Your task to perform on an android device: change the clock display to analog Image 0: 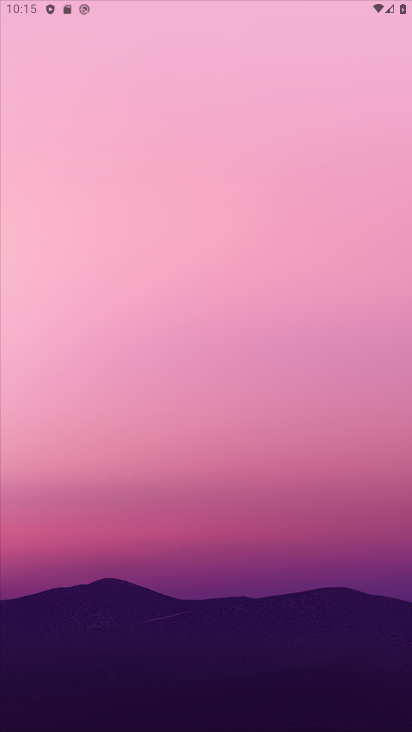
Step 0: press back button
Your task to perform on an android device: change the clock display to analog Image 1: 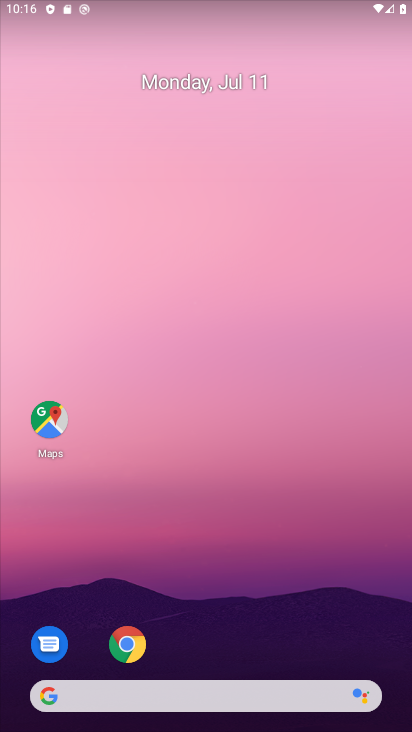
Step 1: drag from (132, 485) to (73, 207)
Your task to perform on an android device: change the clock display to analog Image 2: 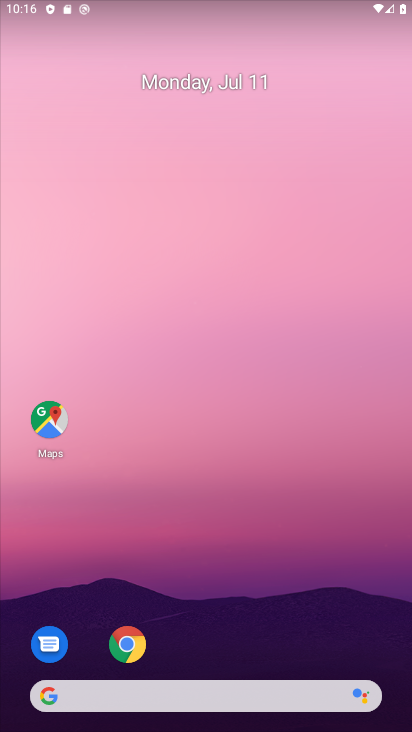
Step 2: drag from (228, 597) to (211, 184)
Your task to perform on an android device: change the clock display to analog Image 3: 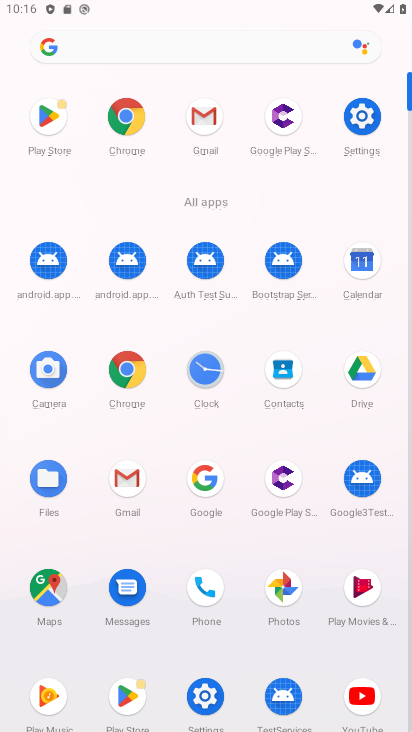
Step 3: click (192, 365)
Your task to perform on an android device: change the clock display to analog Image 4: 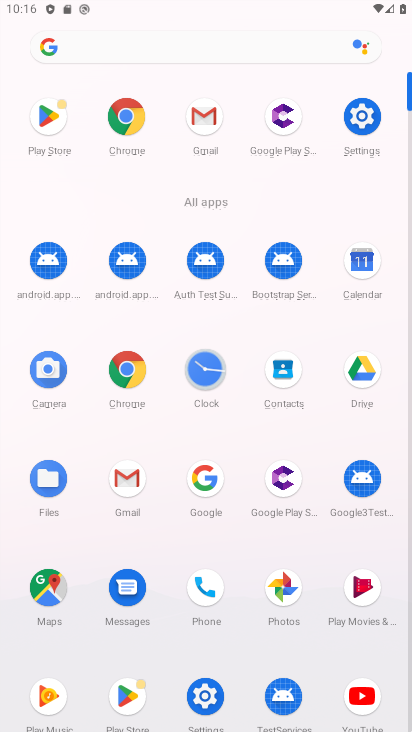
Step 4: click (198, 369)
Your task to perform on an android device: change the clock display to analog Image 5: 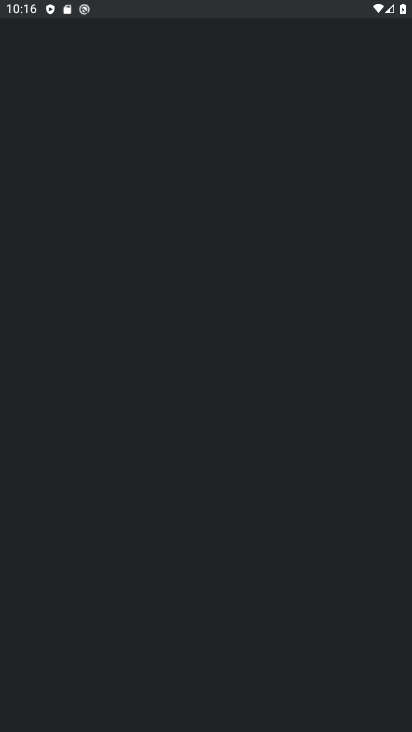
Step 5: click (198, 369)
Your task to perform on an android device: change the clock display to analog Image 6: 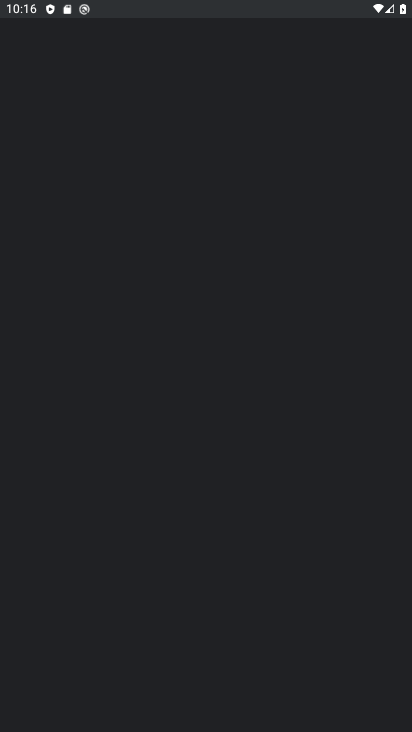
Step 6: click (197, 369)
Your task to perform on an android device: change the clock display to analog Image 7: 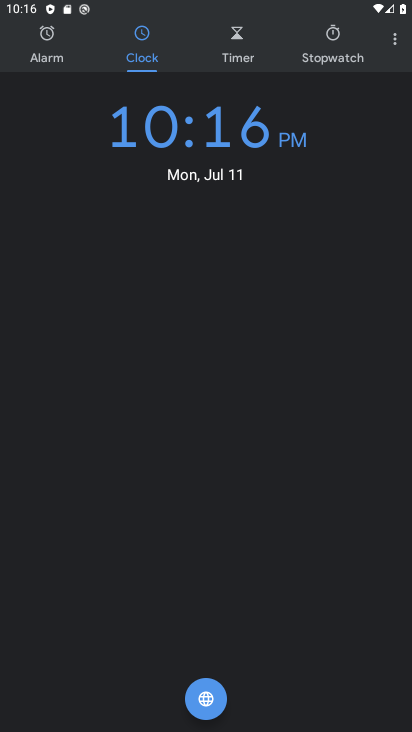
Step 7: click (393, 31)
Your task to perform on an android device: change the clock display to analog Image 8: 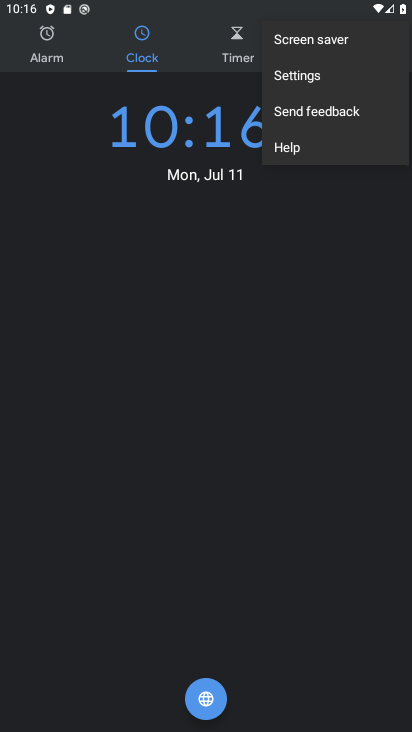
Step 8: click (311, 71)
Your task to perform on an android device: change the clock display to analog Image 9: 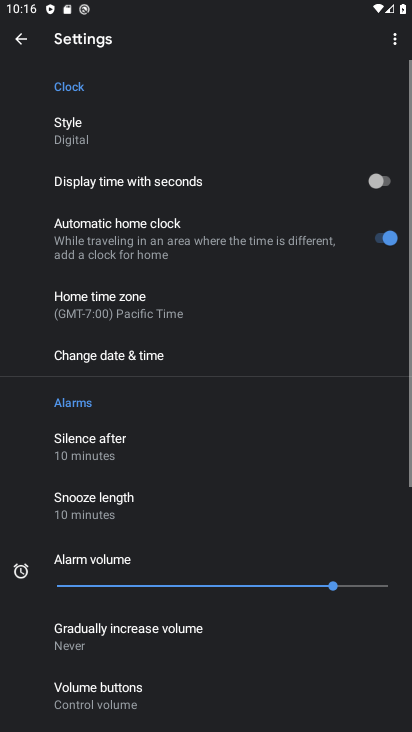
Step 9: click (93, 134)
Your task to perform on an android device: change the clock display to analog Image 10: 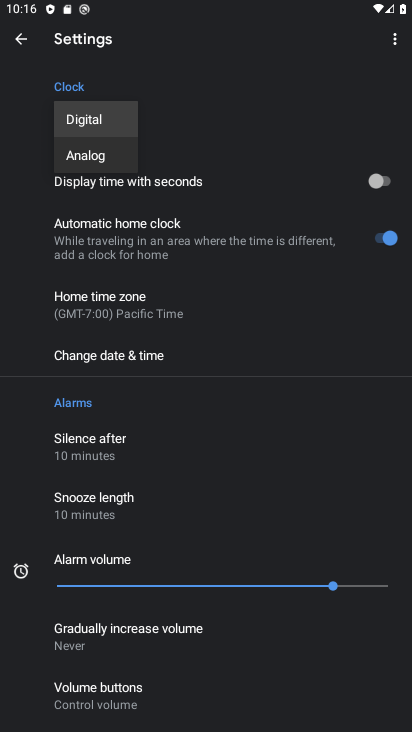
Step 10: click (94, 154)
Your task to perform on an android device: change the clock display to analog Image 11: 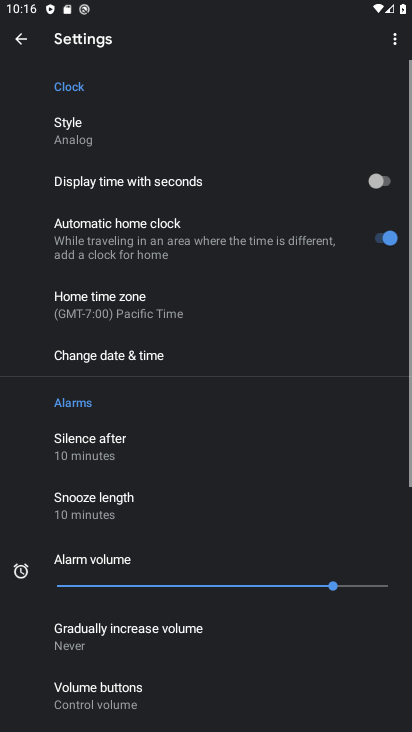
Step 11: task complete